Your task to perform on an android device: change the clock display to digital Image 0: 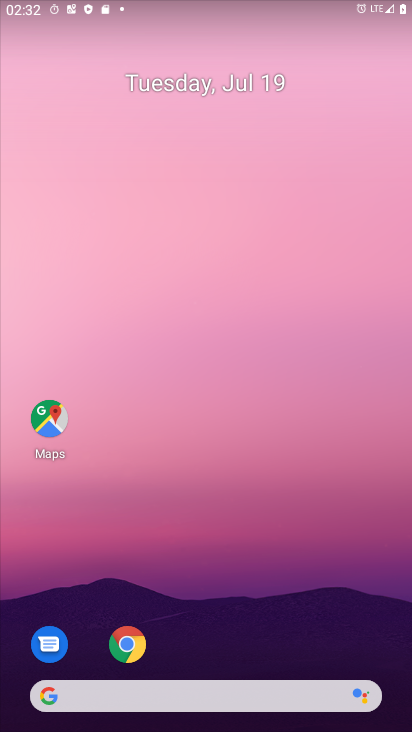
Step 0: drag from (208, 726) to (202, 140)
Your task to perform on an android device: change the clock display to digital Image 1: 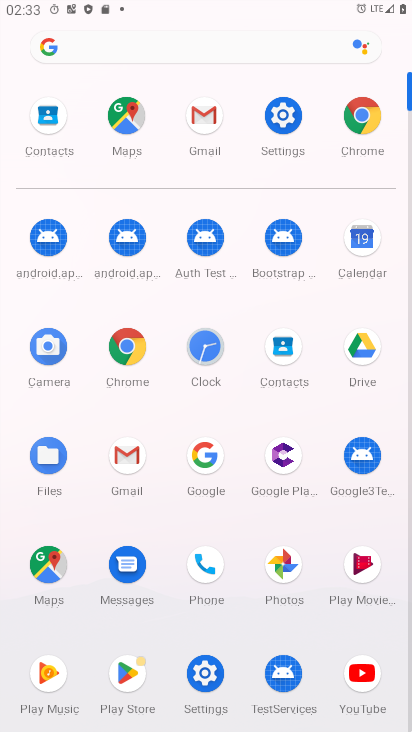
Step 1: click (205, 343)
Your task to perform on an android device: change the clock display to digital Image 2: 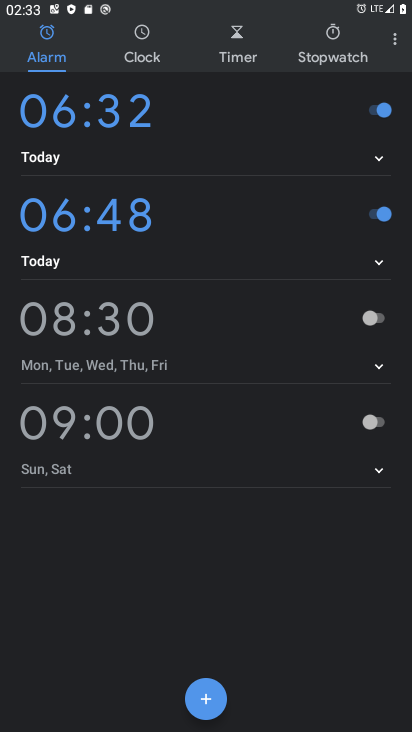
Step 2: click (393, 40)
Your task to perform on an android device: change the clock display to digital Image 3: 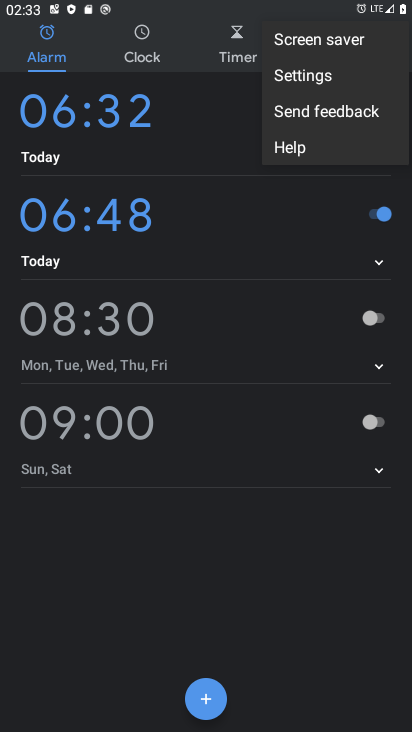
Step 3: click (310, 76)
Your task to perform on an android device: change the clock display to digital Image 4: 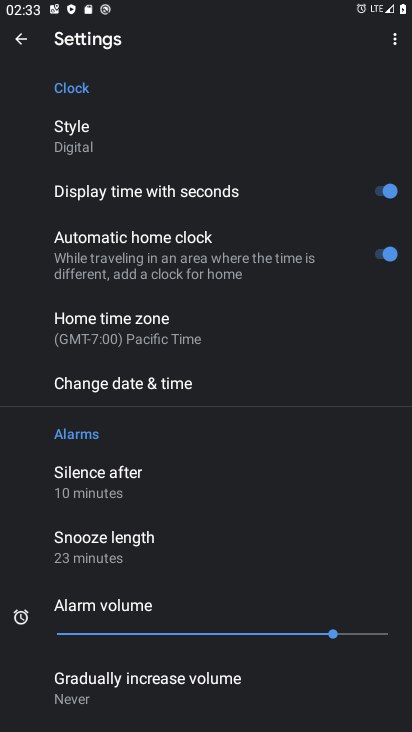
Step 4: task complete